Your task to perform on an android device: What is the recent news? Image 0: 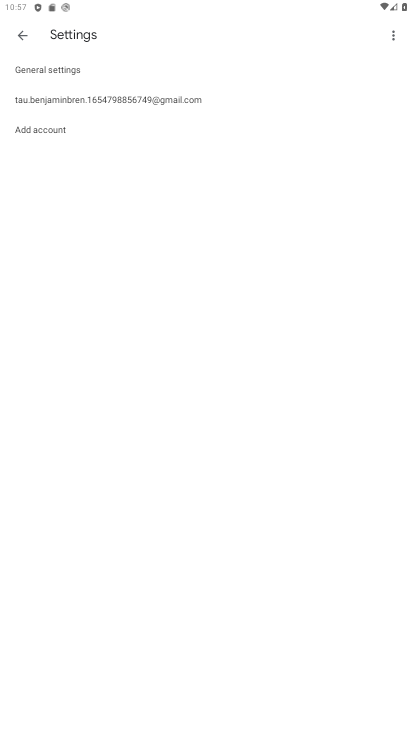
Step 0: press home button
Your task to perform on an android device: What is the recent news? Image 1: 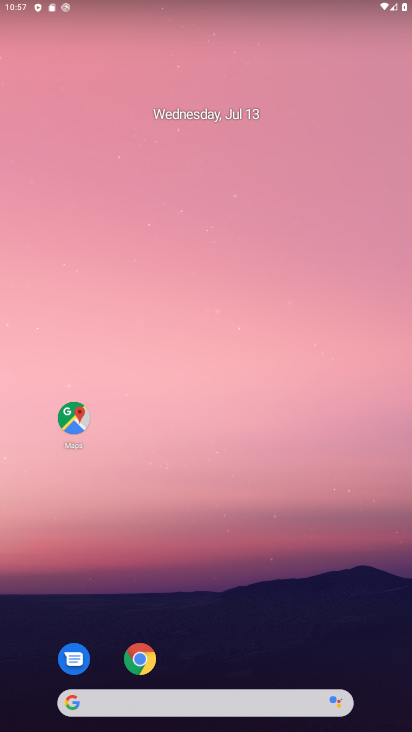
Step 1: task complete